Your task to perform on an android device: What's the weather going to be tomorrow? Image 0: 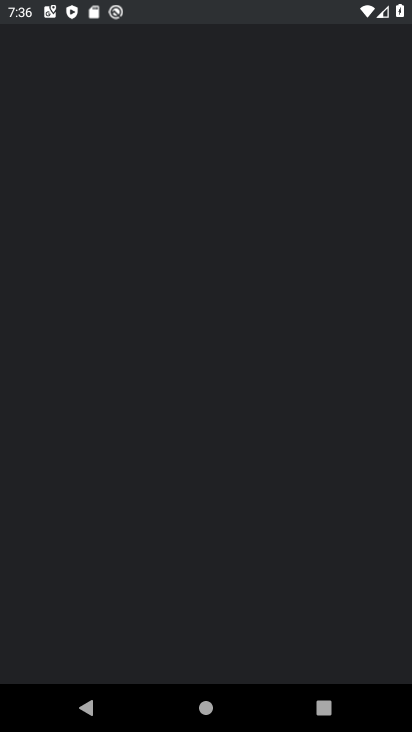
Step 0: click (252, 250)
Your task to perform on an android device: What's the weather going to be tomorrow? Image 1: 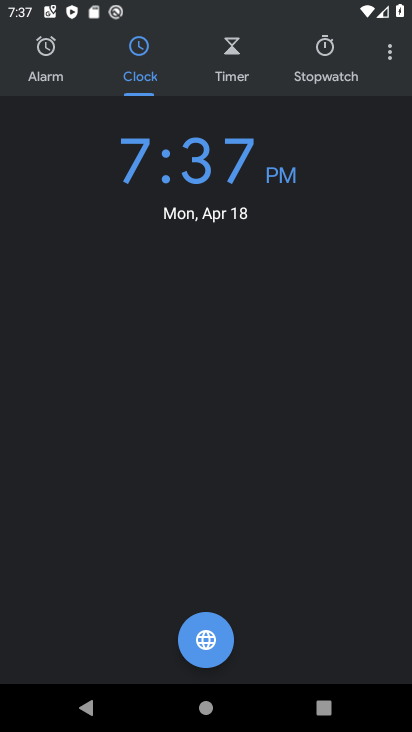
Step 1: press home button
Your task to perform on an android device: What's the weather going to be tomorrow? Image 2: 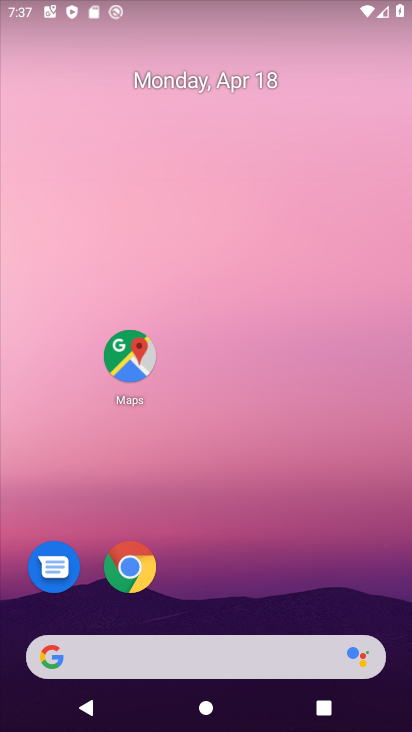
Step 2: click (62, 667)
Your task to perform on an android device: What's the weather going to be tomorrow? Image 3: 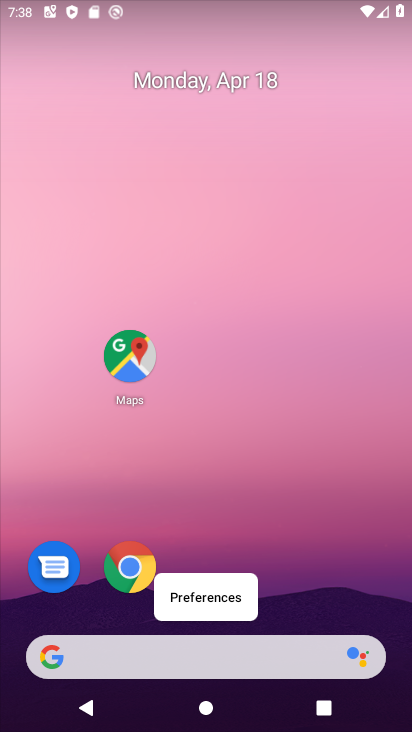
Step 3: click (71, 660)
Your task to perform on an android device: What's the weather going to be tomorrow? Image 4: 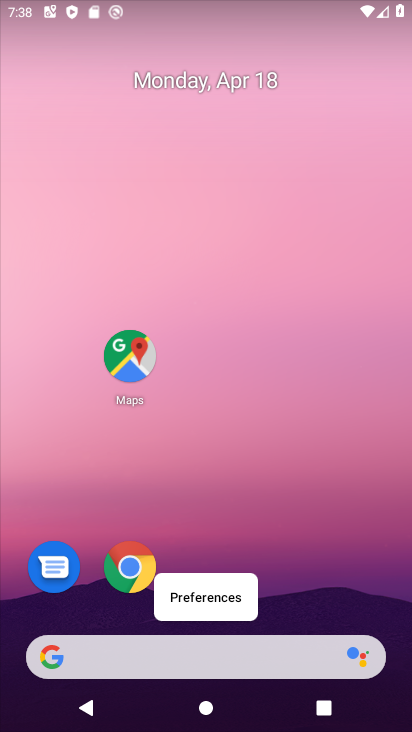
Step 4: click (71, 660)
Your task to perform on an android device: What's the weather going to be tomorrow? Image 5: 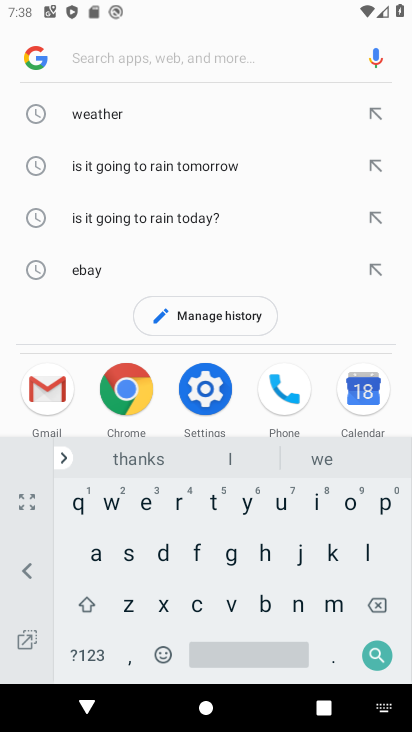
Step 5: click (36, 52)
Your task to perform on an android device: What's the weather going to be tomorrow? Image 6: 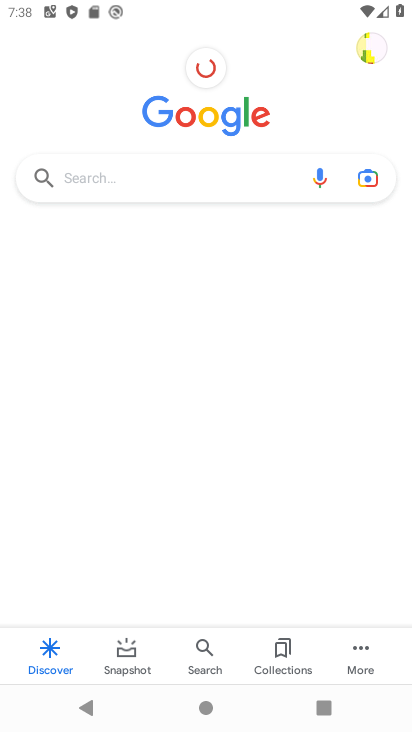
Step 6: click (154, 172)
Your task to perform on an android device: What's the weather going to be tomorrow? Image 7: 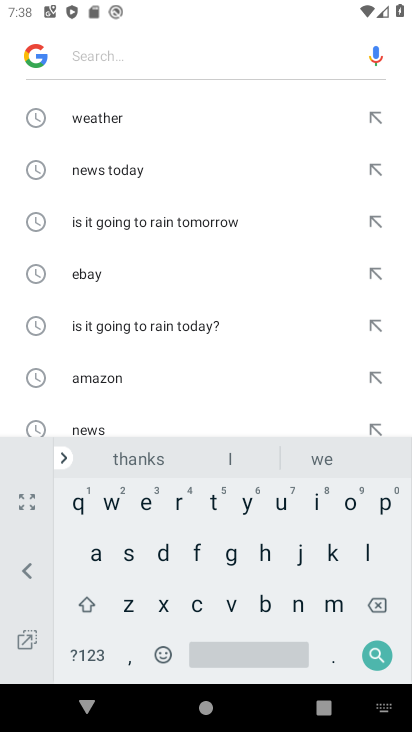
Step 7: click (128, 126)
Your task to perform on an android device: What's the weather going to be tomorrow? Image 8: 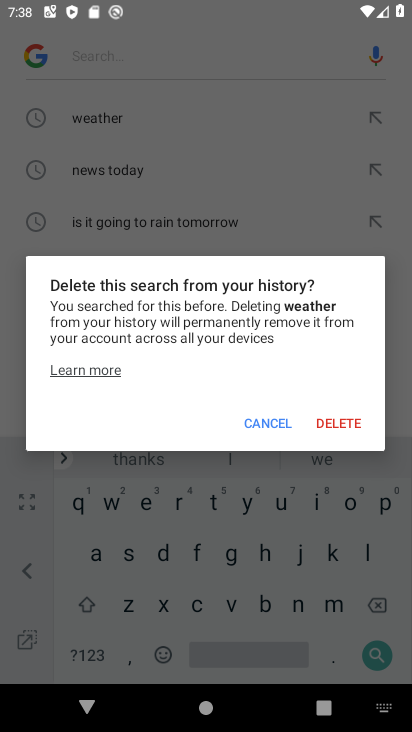
Step 8: click (268, 421)
Your task to perform on an android device: What's the weather going to be tomorrow? Image 9: 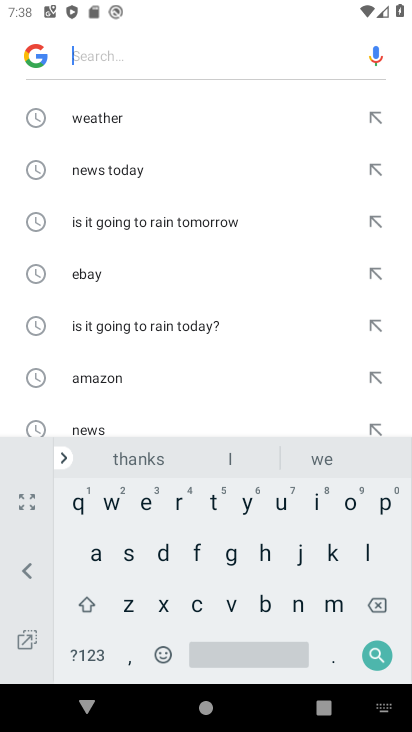
Step 9: click (112, 124)
Your task to perform on an android device: What's the weather going to be tomorrow? Image 10: 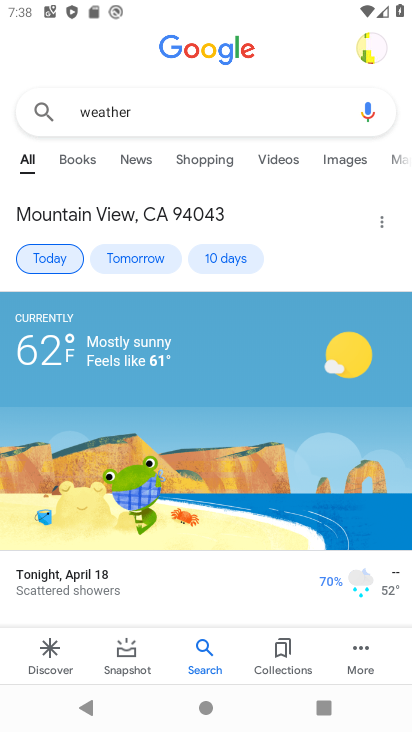
Step 10: click (128, 266)
Your task to perform on an android device: What's the weather going to be tomorrow? Image 11: 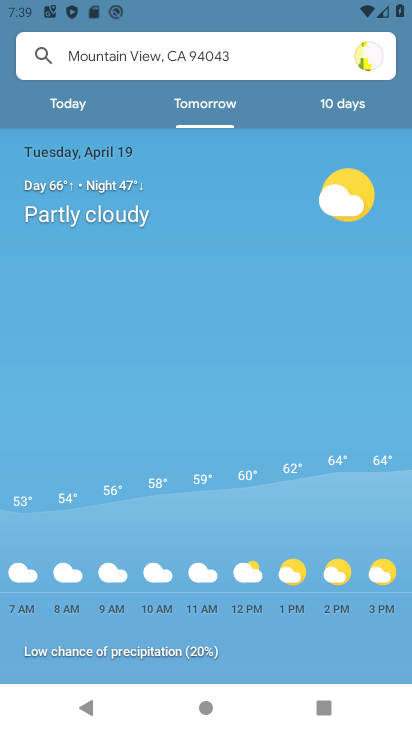
Step 11: task complete